Your task to perform on an android device: Search for seafood restaurants on Google Maps Image 0: 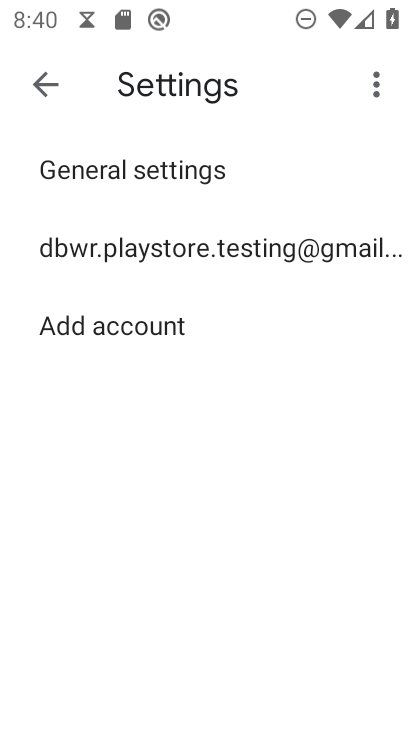
Step 0: press home button
Your task to perform on an android device: Search for seafood restaurants on Google Maps Image 1: 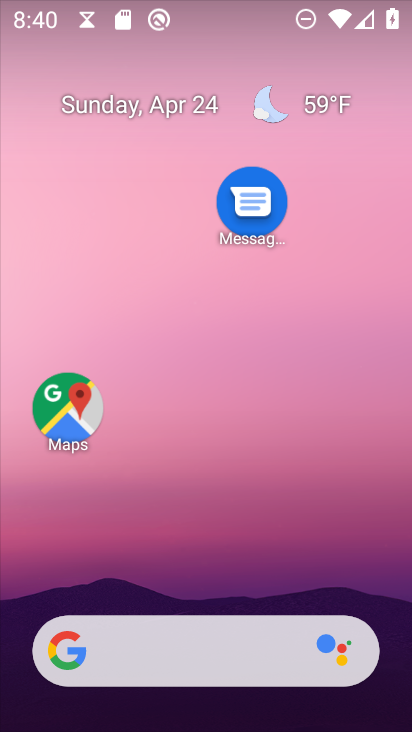
Step 1: click (73, 421)
Your task to perform on an android device: Search for seafood restaurants on Google Maps Image 2: 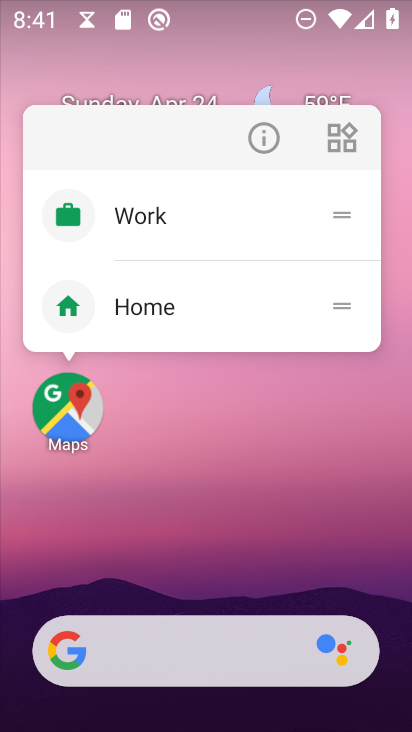
Step 2: click (62, 424)
Your task to perform on an android device: Search for seafood restaurants on Google Maps Image 3: 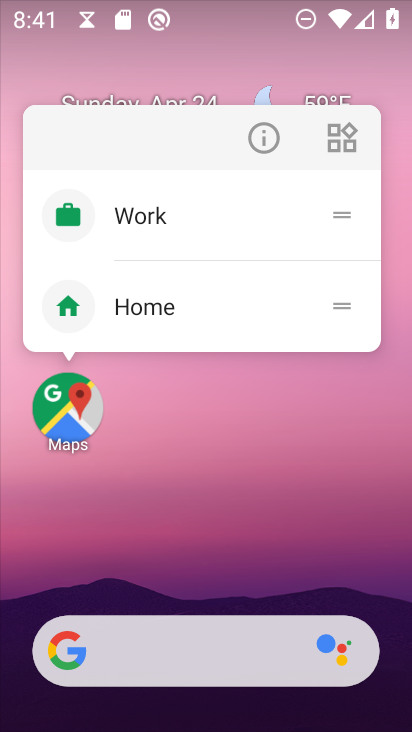
Step 3: click (67, 417)
Your task to perform on an android device: Search for seafood restaurants on Google Maps Image 4: 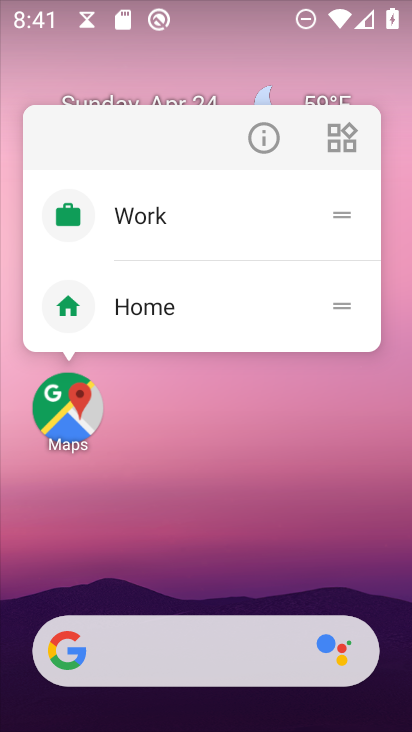
Step 4: click (70, 414)
Your task to perform on an android device: Search for seafood restaurants on Google Maps Image 5: 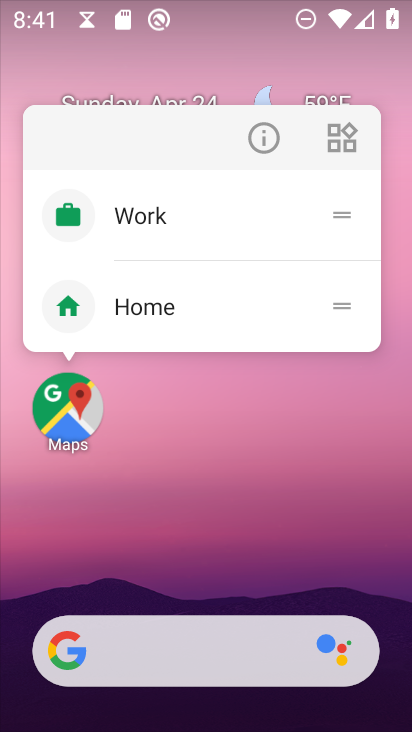
Step 5: click (66, 421)
Your task to perform on an android device: Search for seafood restaurants on Google Maps Image 6: 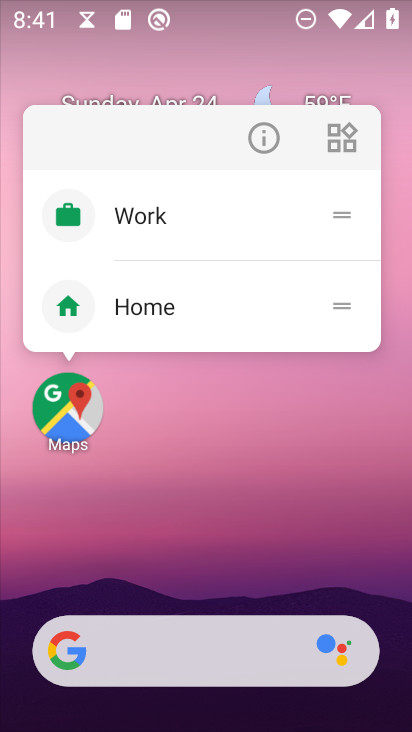
Step 6: click (62, 423)
Your task to perform on an android device: Search for seafood restaurants on Google Maps Image 7: 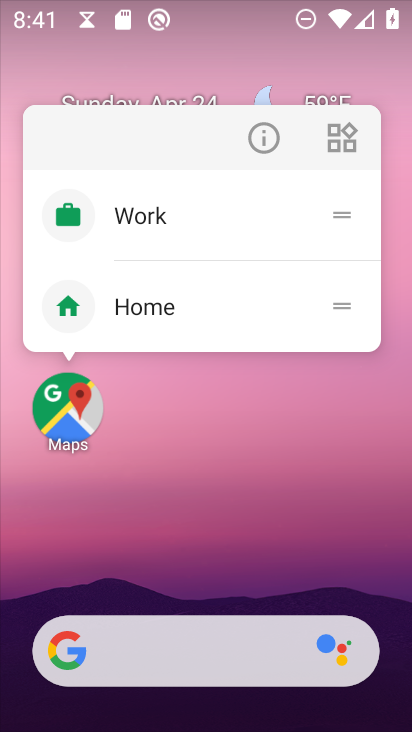
Step 7: click (70, 425)
Your task to perform on an android device: Search for seafood restaurants on Google Maps Image 8: 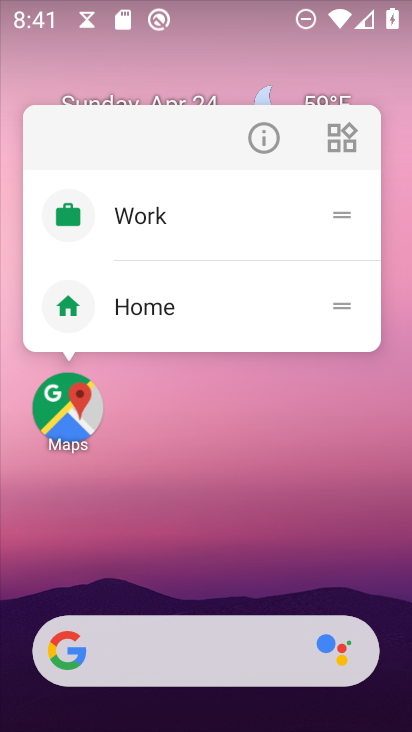
Step 8: click (67, 425)
Your task to perform on an android device: Search for seafood restaurants on Google Maps Image 9: 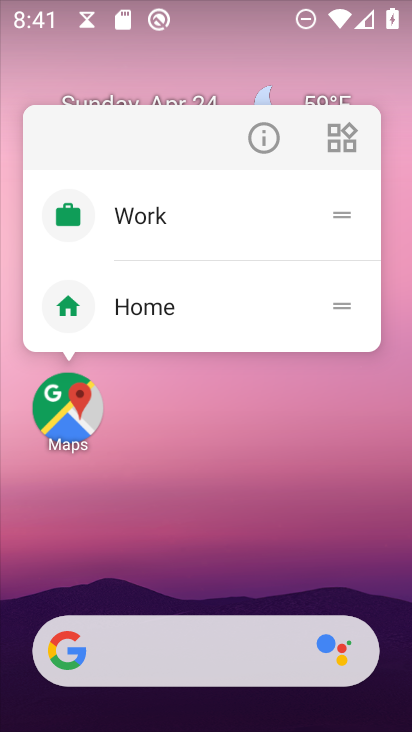
Step 9: click (67, 425)
Your task to perform on an android device: Search for seafood restaurants on Google Maps Image 10: 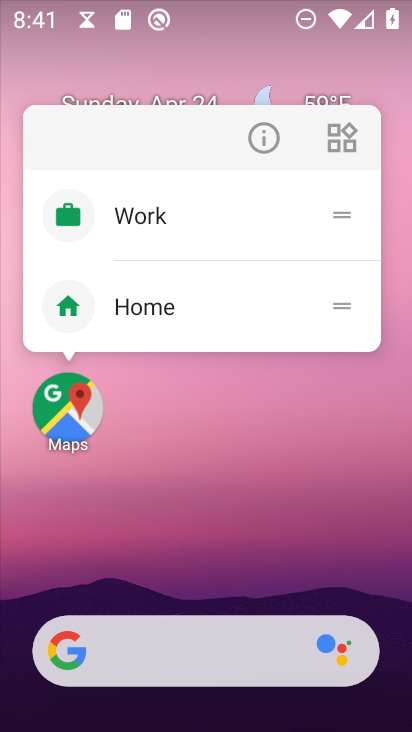
Step 10: click (67, 425)
Your task to perform on an android device: Search for seafood restaurants on Google Maps Image 11: 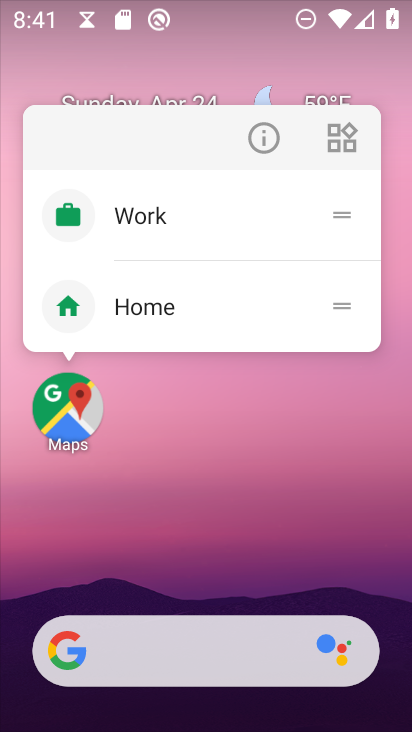
Step 11: click (66, 422)
Your task to perform on an android device: Search for seafood restaurants on Google Maps Image 12: 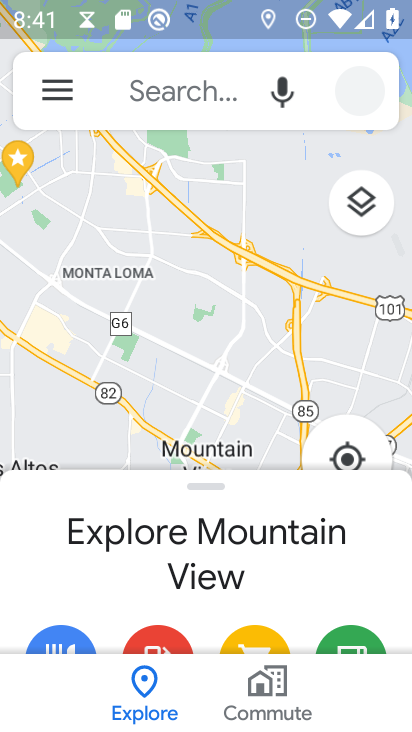
Step 12: click (179, 85)
Your task to perform on an android device: Search for seafood restaurants on Google Maps Image 13: 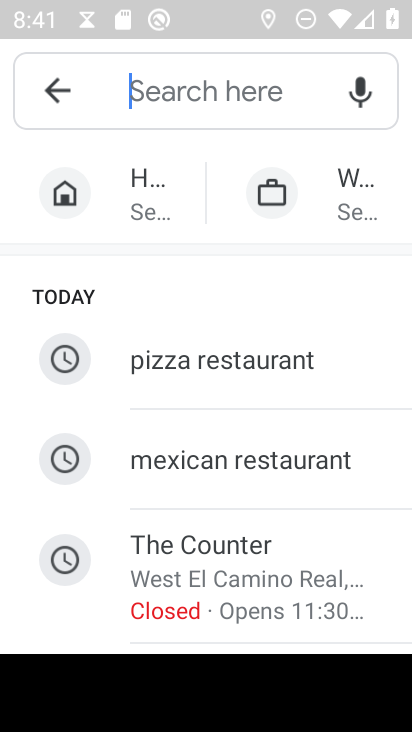
Step 13: drag from (270, 539) to (409, 165)
Your task to perform on an android device: Search for seafood restaurants on Google Maps Image 14: 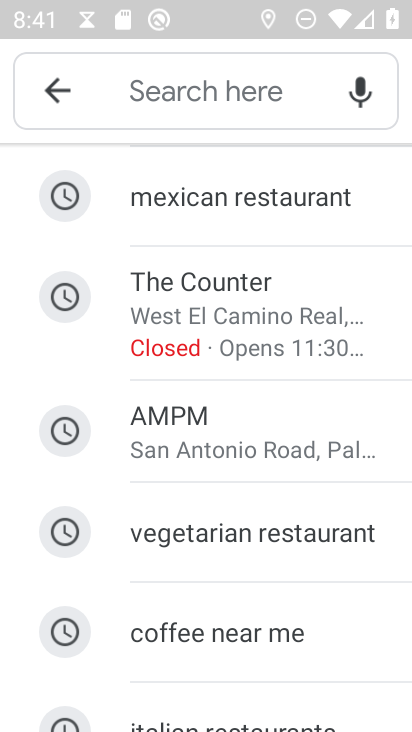
Step 14: drag from (179, 597) to (324, 182)
Your task to perform on an android device: Search for seafood restaurants on Google Maps Image 15: 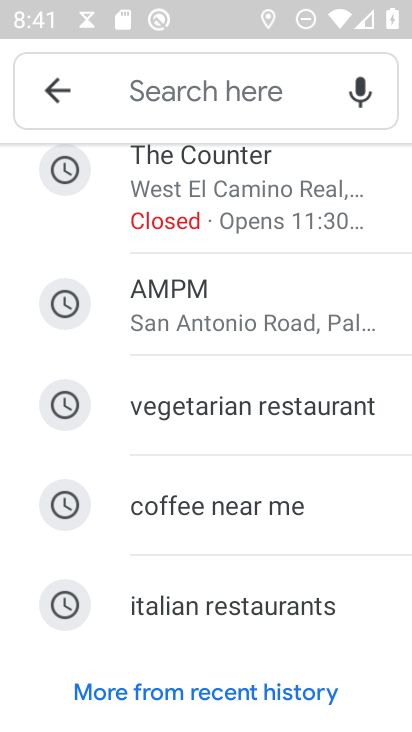
Step 15: type "seafood"
Your task to perform on an android device: Search for seafood restaurants on Google Maps Image 16: 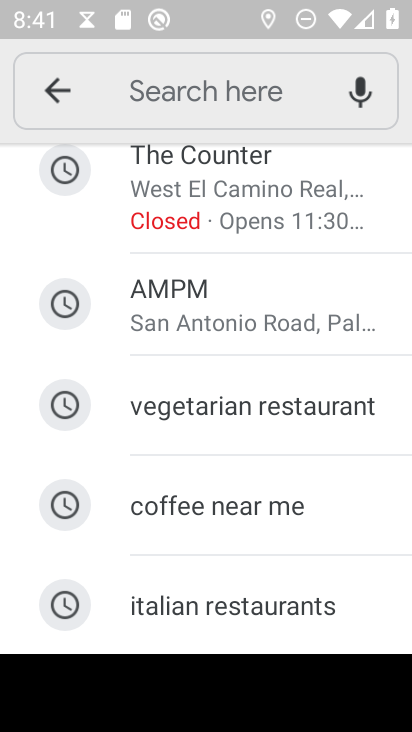
Step 16: click (212, 85)
Your task to perform on an android device: Search for seafood restaurants on Google Maps Image 17: 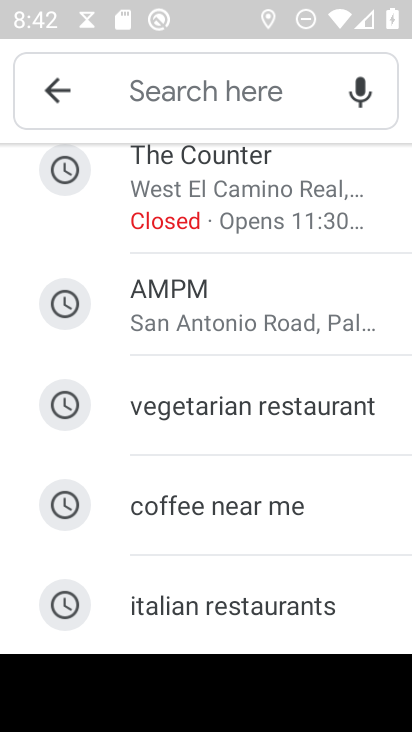
Step 17: type "seafood"
Your task to perform on an android device: Search for seafood restaurants on Google Maps Image 18: 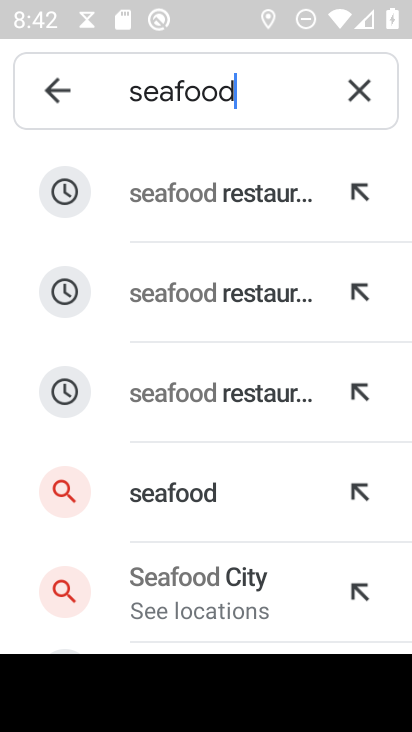
Step 18: click (250, 202)
Your task to perform on an android device: Search for seafood restaurants on Google Maps Image 19: 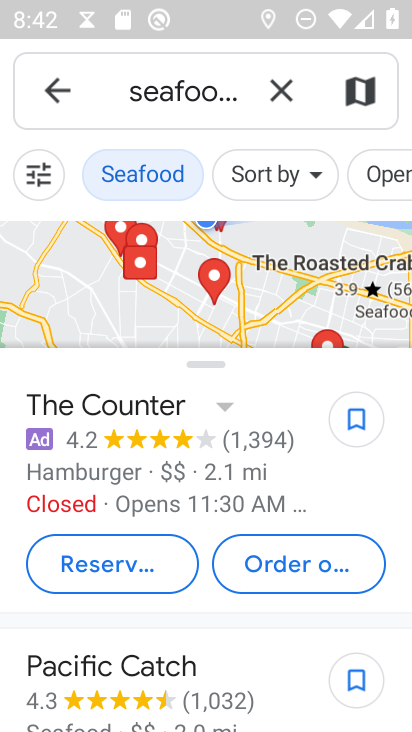
Step 19: task complete